Your task to perform on an android device: install app "Google Keep" Image 0: 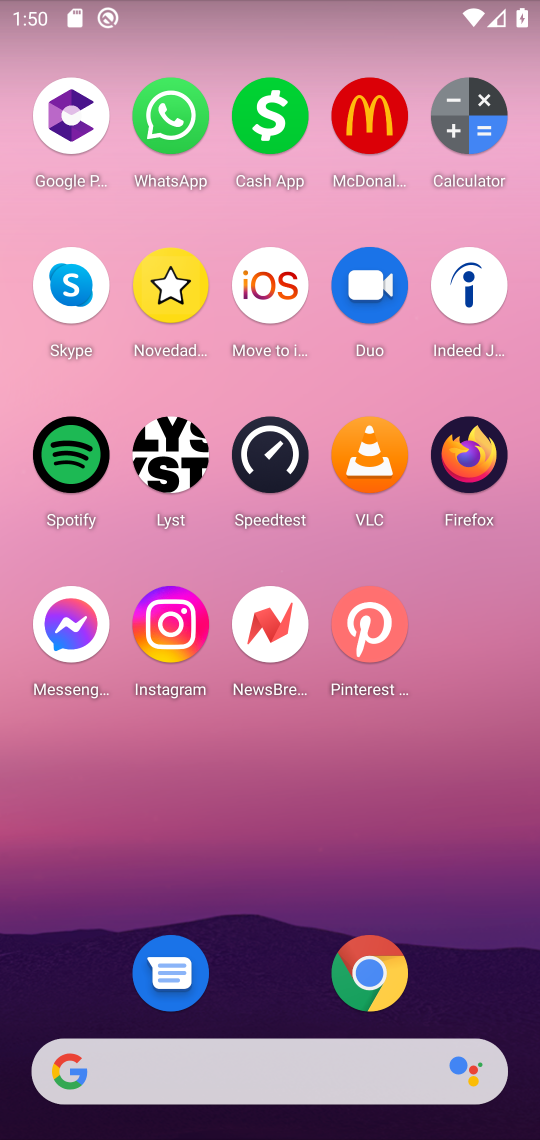
Step 0: drag from (270, 1008) to (274, 174)
Your task to perform on an android device: install app "Google Keep" Image 1: 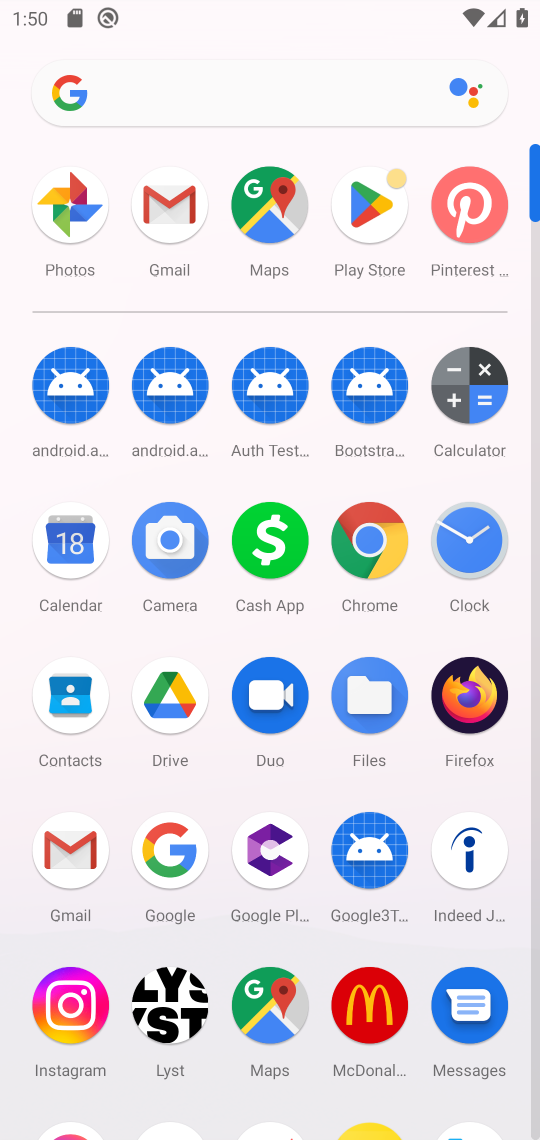
Step 1: click (349, 223)
Your task to perform on an android device: install app "Google Keep" Image 2: 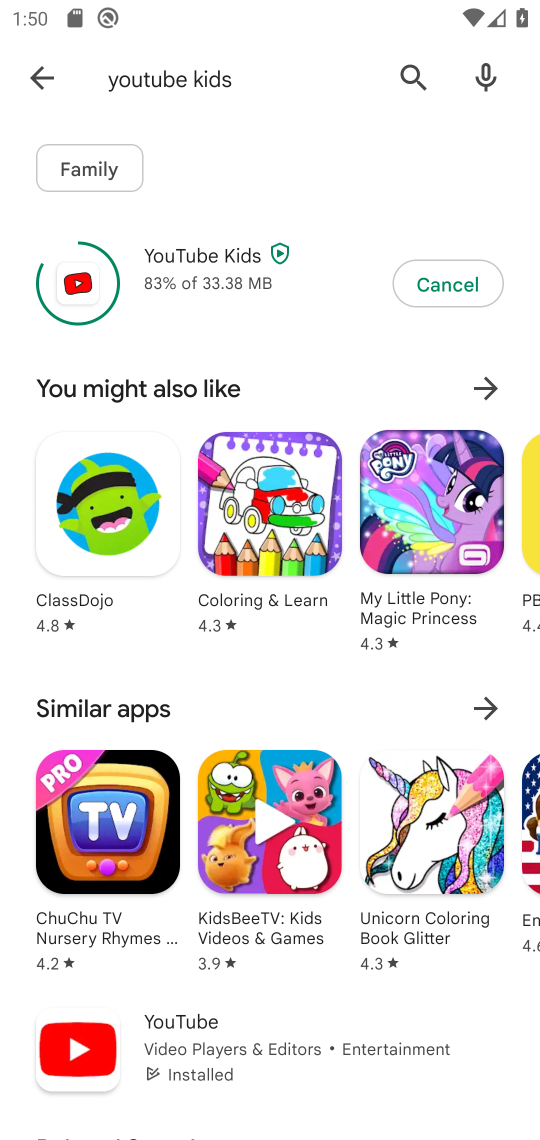
Step 2: click (408, 103)
Your task to perform on an android device: install app "Google Keep" Image 3: 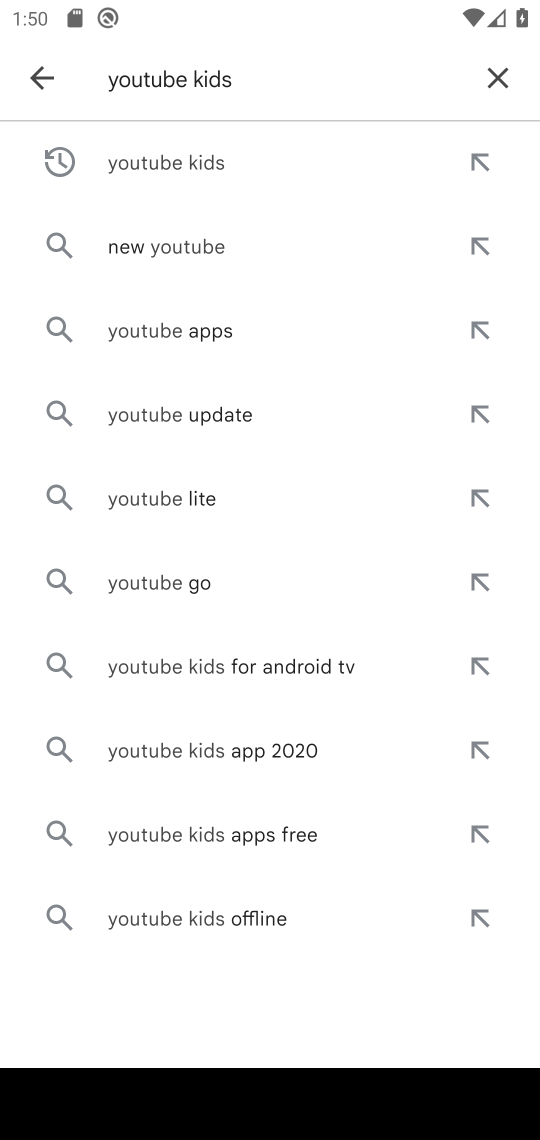
Step 3: click (483, 82)
Your task to perform on an android device: install app "Google Keep" Image 4: 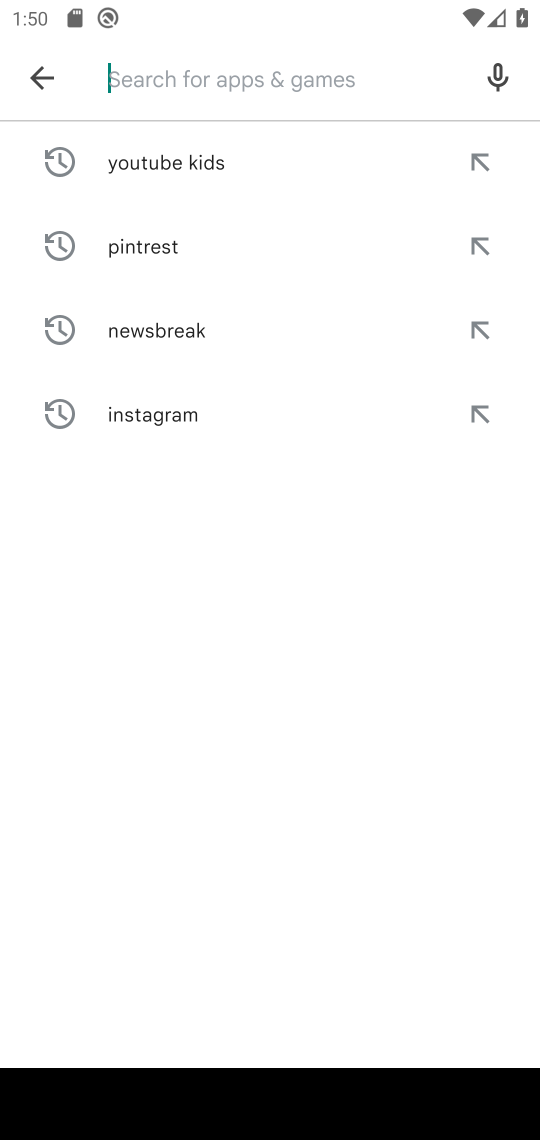
Step 4: type "google keep"
Your task to perform on an android device: install app "Google Keep" Image 5: 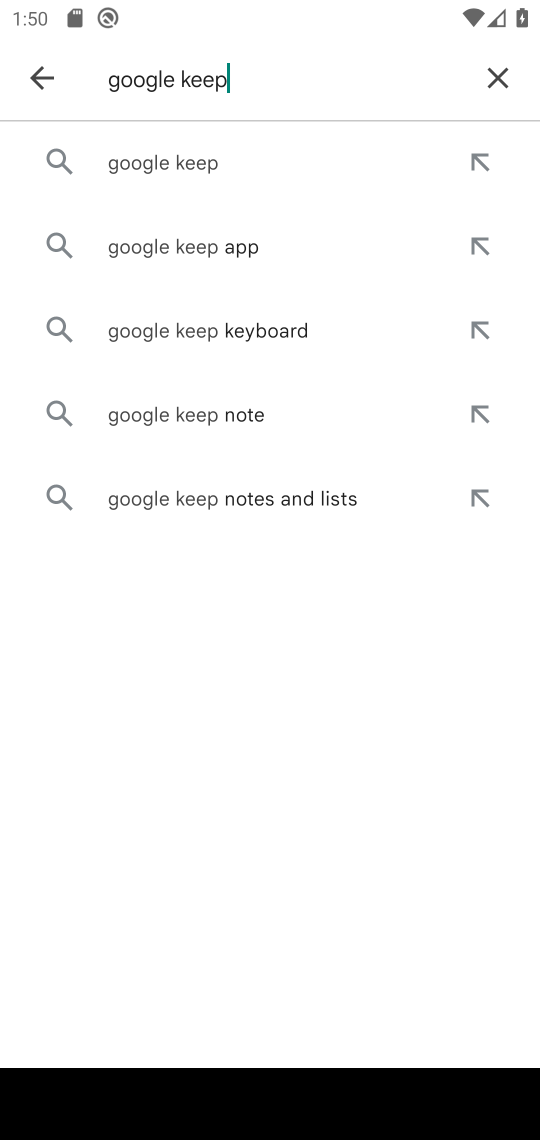
Step 5: click (317, 158)
Your task to perform on an android device: install app "Google Keep" Image 6: 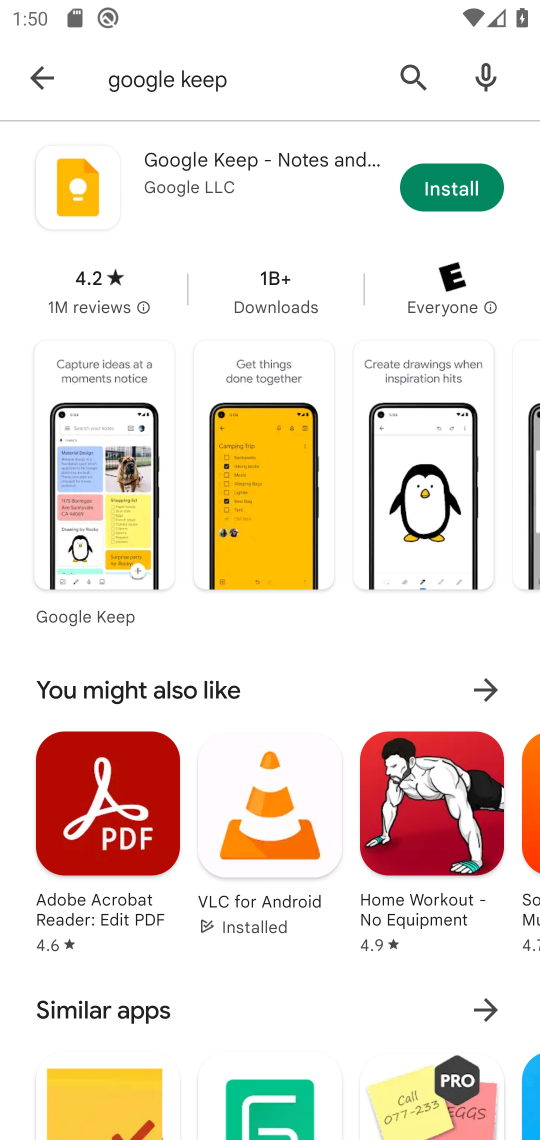
Step 6: click (464, 179)
Your task to perform on an android device: install app "Google Keep" Image 7: 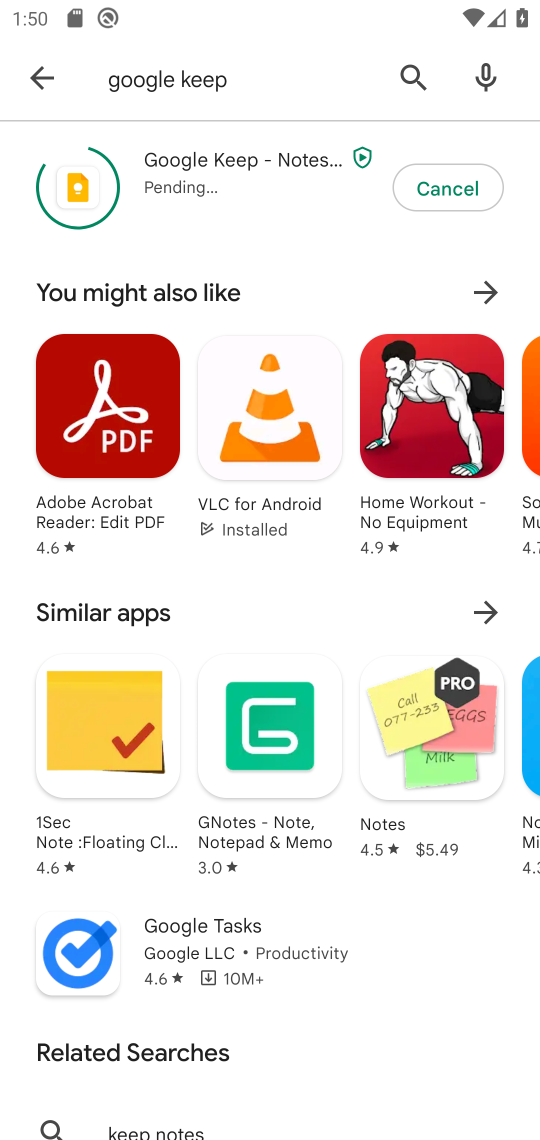
Step 7: task complete